Your task to perform on an android device: Open Google Image 0: 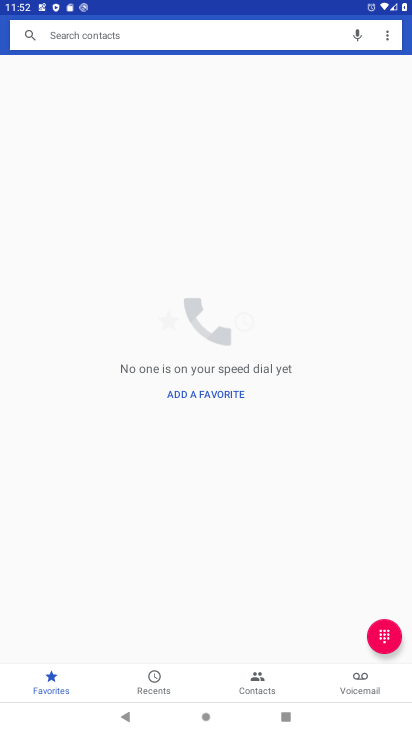
Step 0: press home button
Your task to perform on an android device: Open Google Image 1: 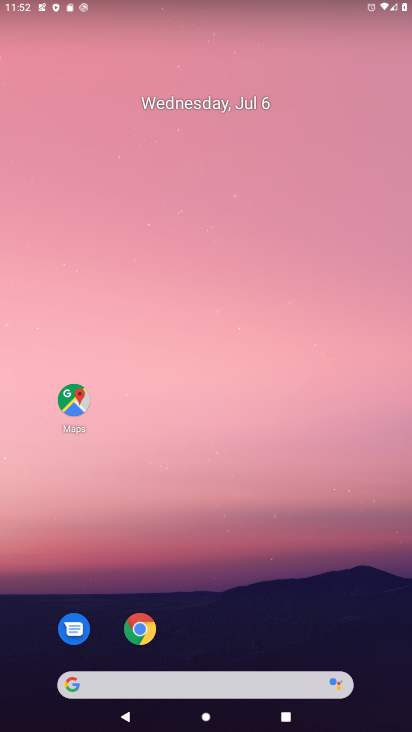
Step 1: drag from (194, 614) to (194, 107)
Your task to perform on an android device: Open Google Image 2: 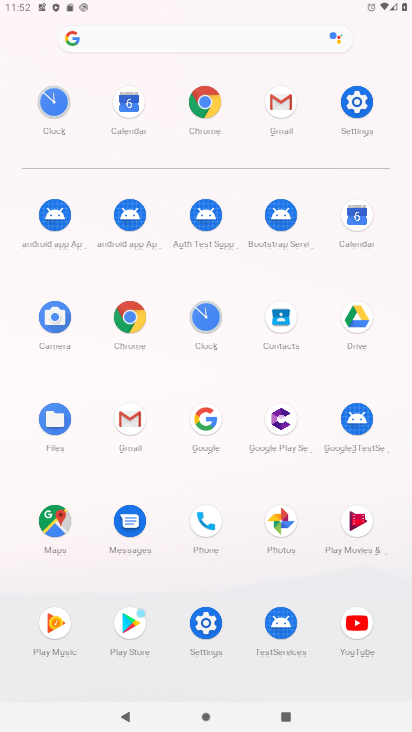
Step 2: click (216, 434)
Your task to perform on an android device: Open Google Image 3: 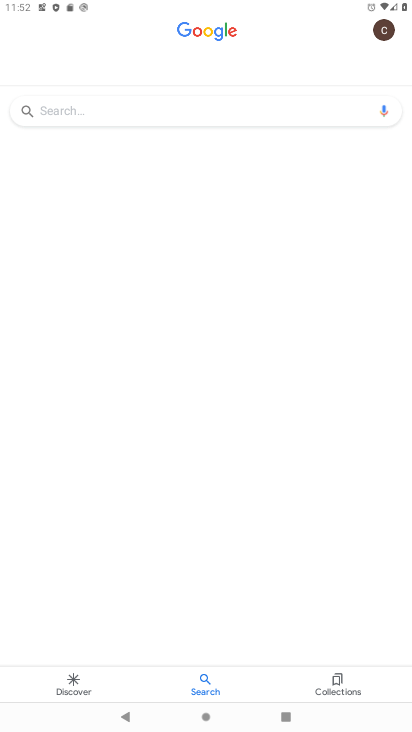
Step 3: task complete